Your task to perform on an android device: Clear the cart on walmart. Add "logitech g933" to the cart on walmart, then select checkout. Image 0: 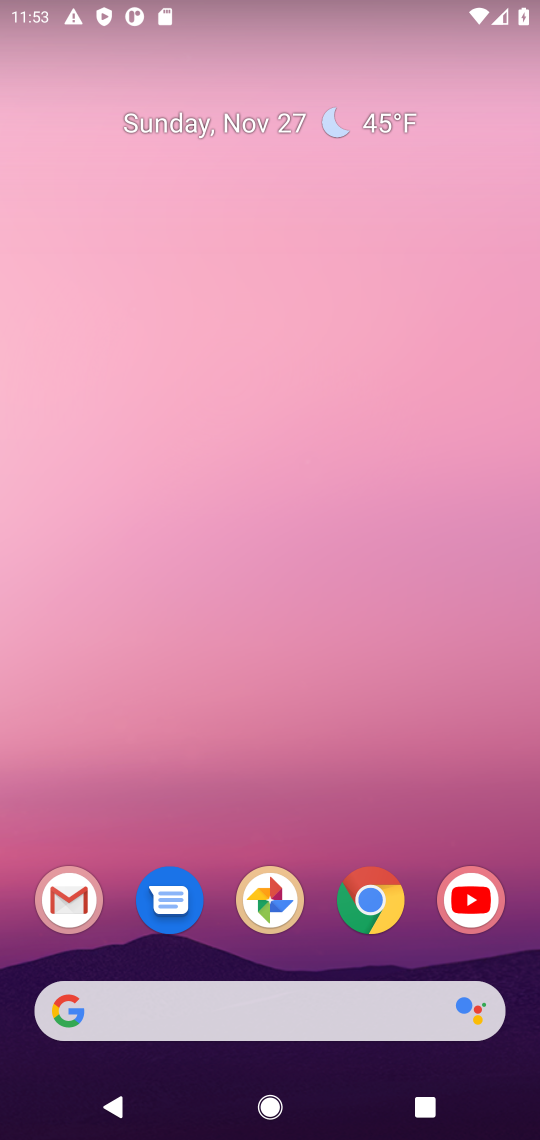
Step 0: click (383, 908)
Your task to perform on an android device: Clear the cart on walmart. Add "logitech g933" to the cart on walmart, then select checkout. Image 1: 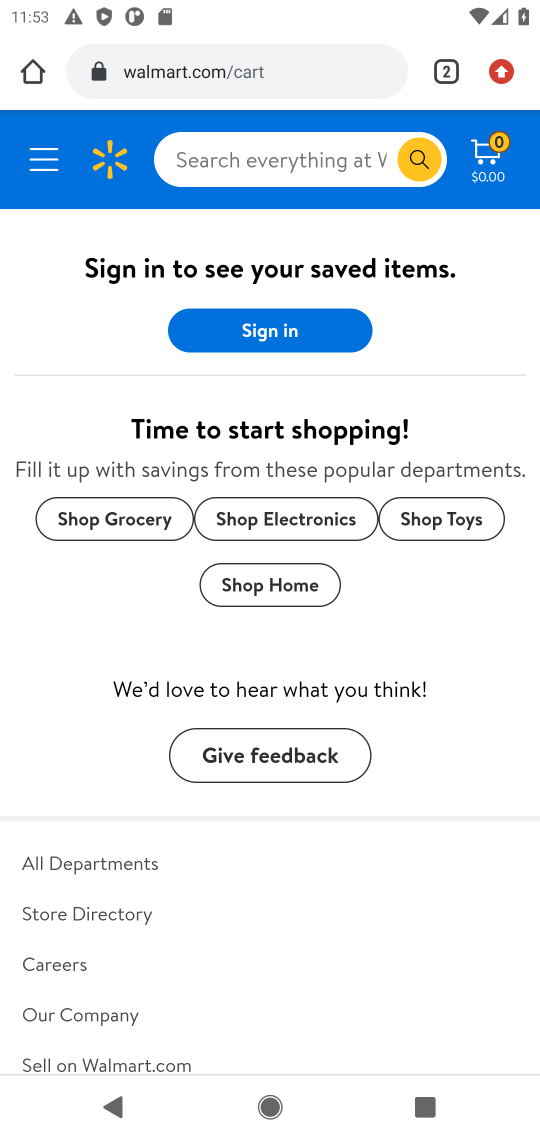
Step 1: click (480, 142)
Your task to perform on an android device: Clear the cart on walmart. Add "logitech g933" to the cart on walmart, then select checkout. Image 2: 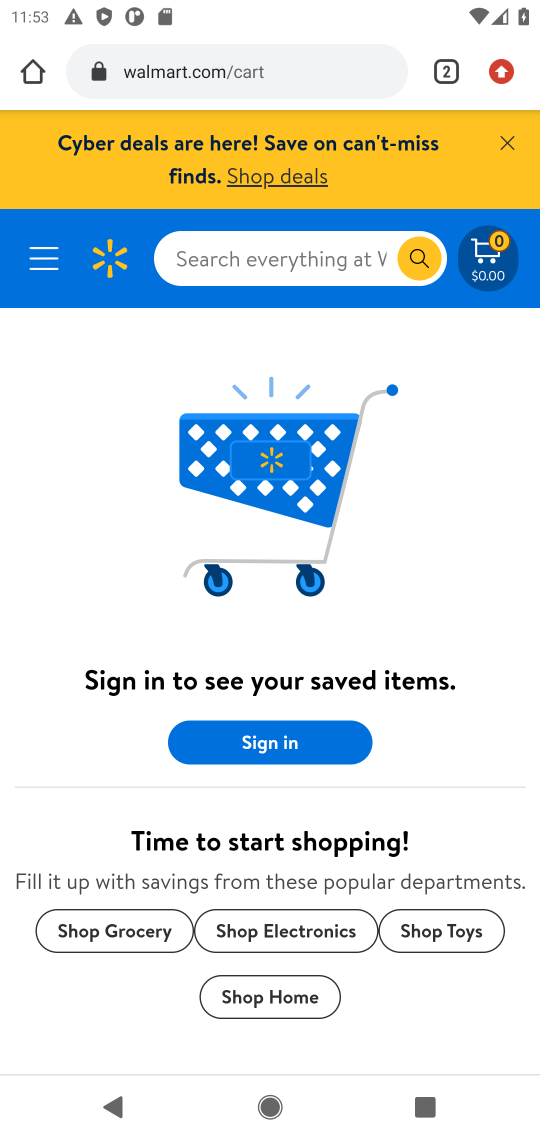
Step 2: click (238, 255)
Your task to perform on an android device: Clear the cart on walmart. Add "logitech g933" to the cart on walmart, then select checkout. Image 3: 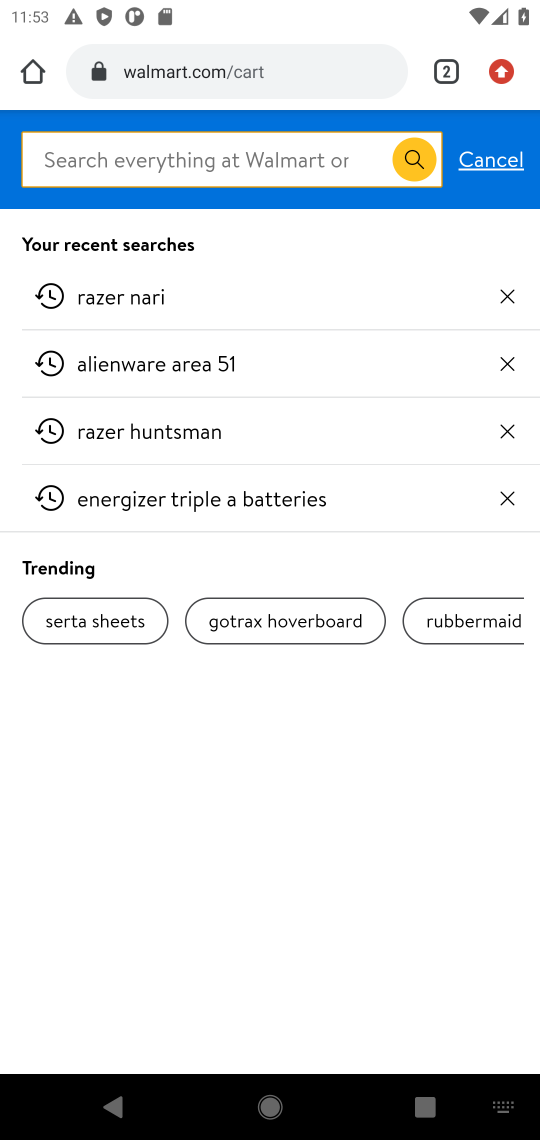
Step 3: type "logitech g933"
Your task to perform on an android device: Clear the cart on walmart. Add "logitech g933" to the cart on walmart, then select checkout. Image 4: 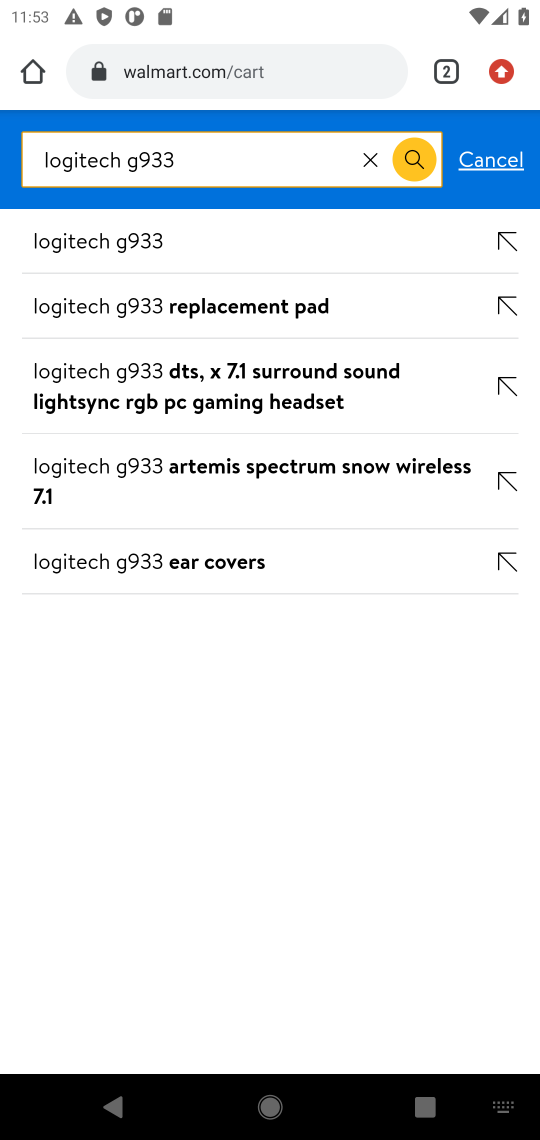
Step 4: click (73, 250)
Your task to perform on an android device: Clear the cart on walmart. Add "logitech g933" to the cart on walmart, then select checkout. Image 5: 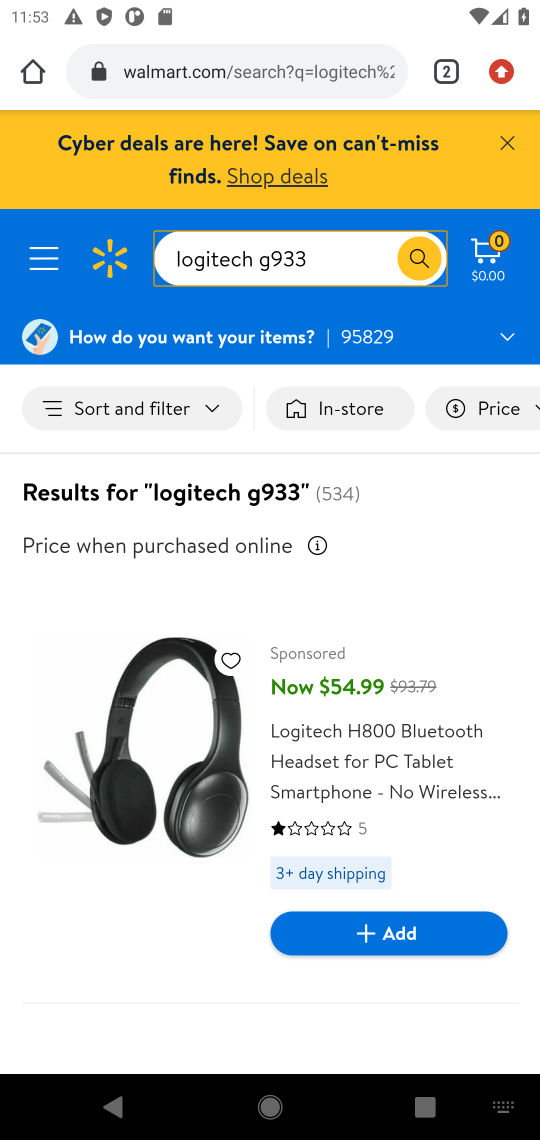
Step 5: drag from (184, 625) to (200, 260)
Your task to perform on an android device: Clear the cart on walmart. Add "logitech g933" to the cart on walmart, then select checkout. Image 6: 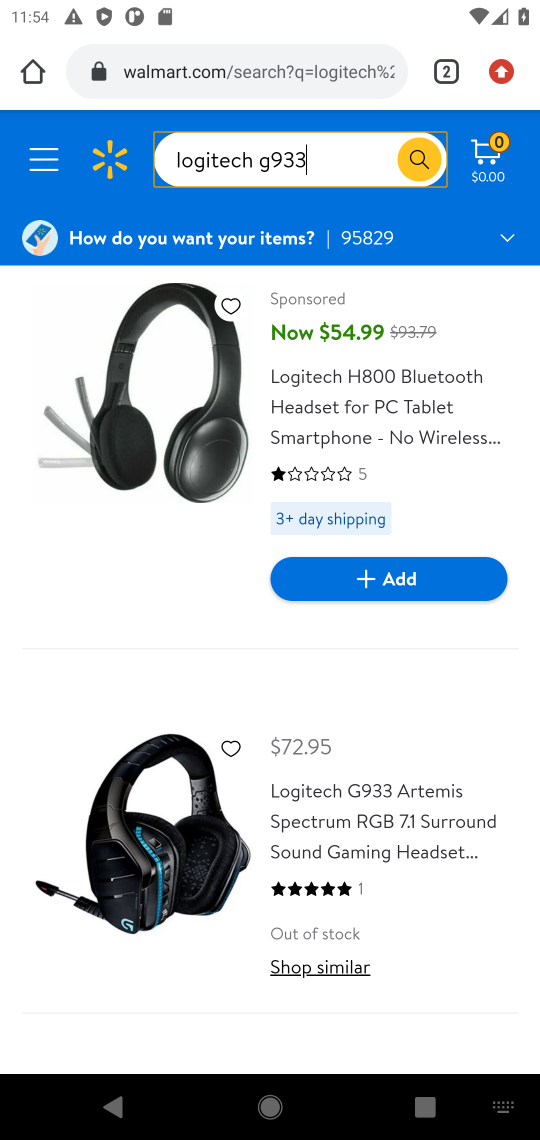
Step 6: drag from (168, 818) to (184, 489)
Your task to perform on an android device: Clear the cart on walmart. Add "logitech g933" to the cart on walmart, then select checkout. Image 7: 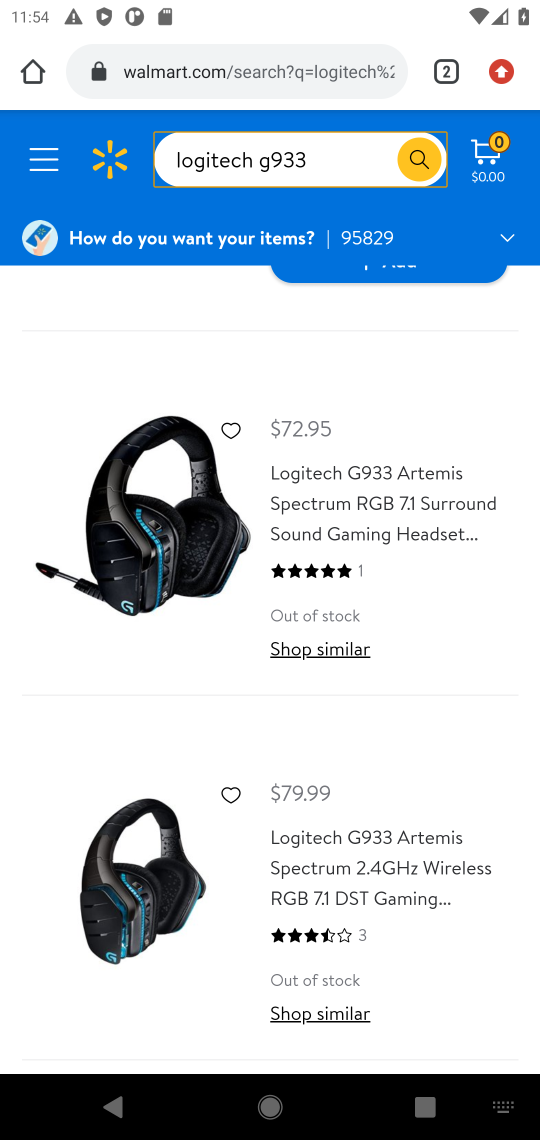
Step 7: drag from (166, 666) to (161, 522)
Your task to perform on an android device: Clear the cart on walmart. Add "logitech g933" to the cart on walmart, then select checkout. Image 8: 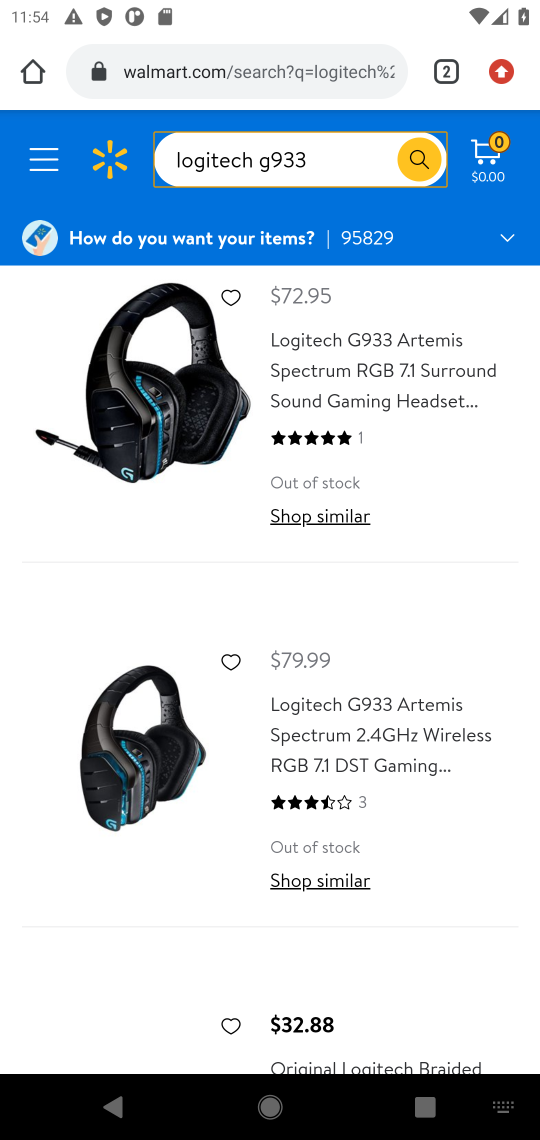
Step 8: drag from (93, 725) to (105, 357)
Your task to perform on an android device: Clear the cart on walmart. Add "logitech g933" to the cart on walmart, then select checkout. Image 9: 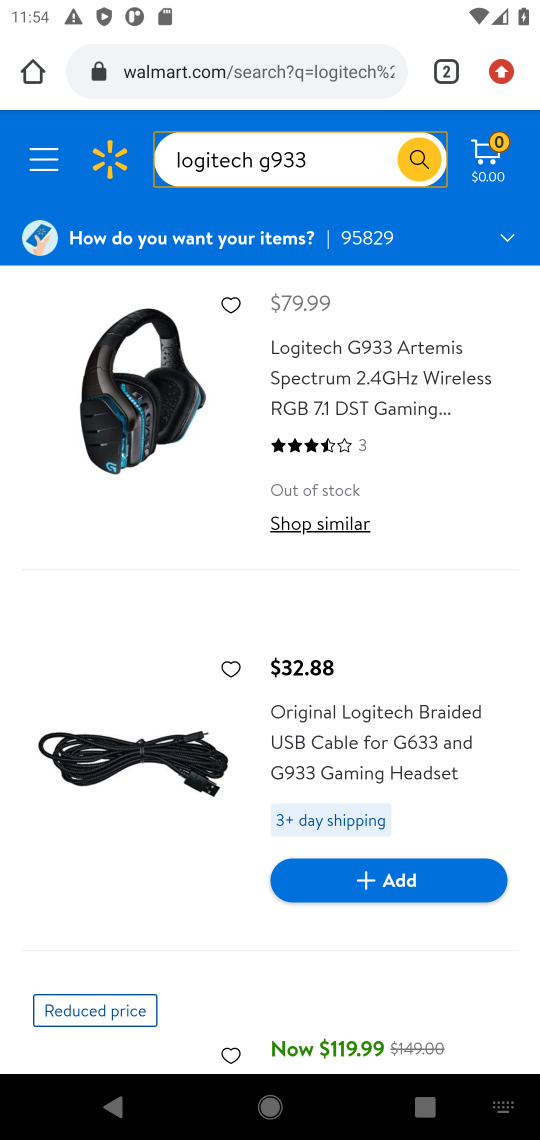
Step 9: click (393, 889)
Your task to perform on an android device: Clear the cart on walmart. Add "logitech g933" to the cart on walmart, then select checkout. Image 10: 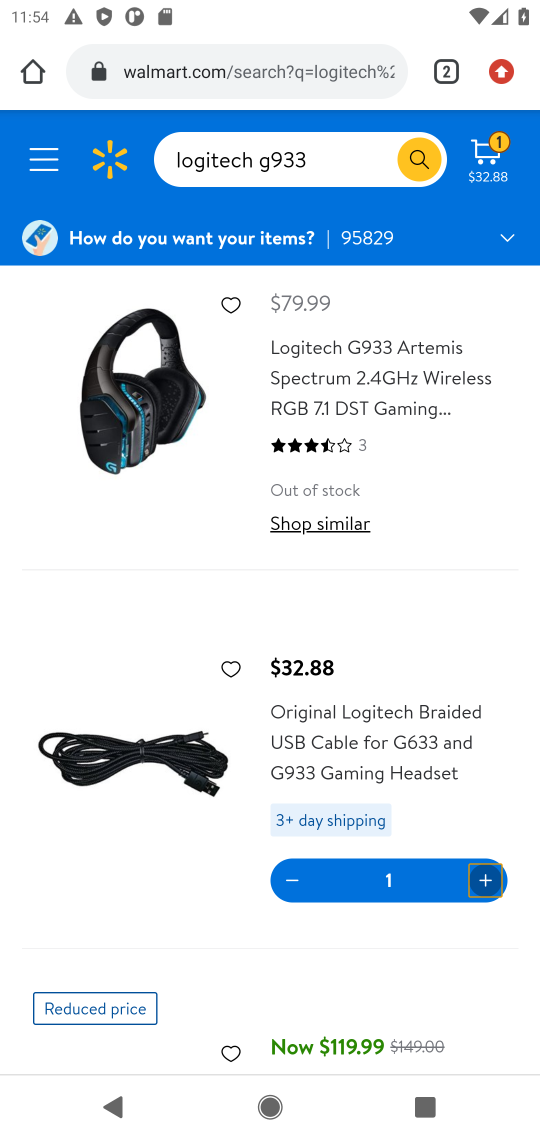
Step 10: click (497, 157)
Your task to perform on an android device: Clear the cart on walmart. Add "logitech g933" to the cart on walmart, then select checkout. Image 11: 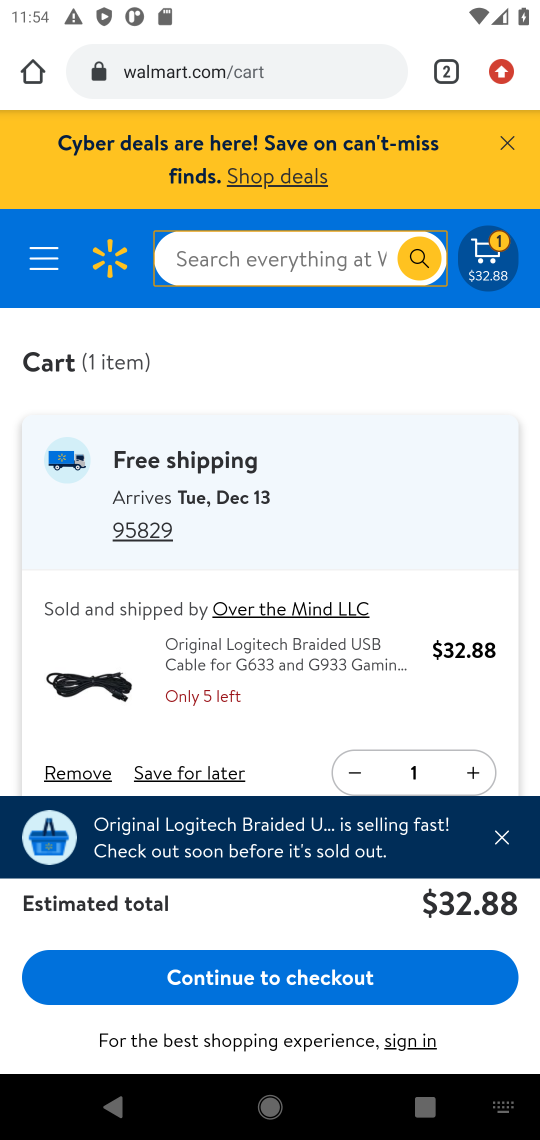
Step 11: click (254, 984)
Your task to perform on an android device: Clear the cart on walmart. Add "logitech g933" to the cart on walmart, then select checkout. Image 12: 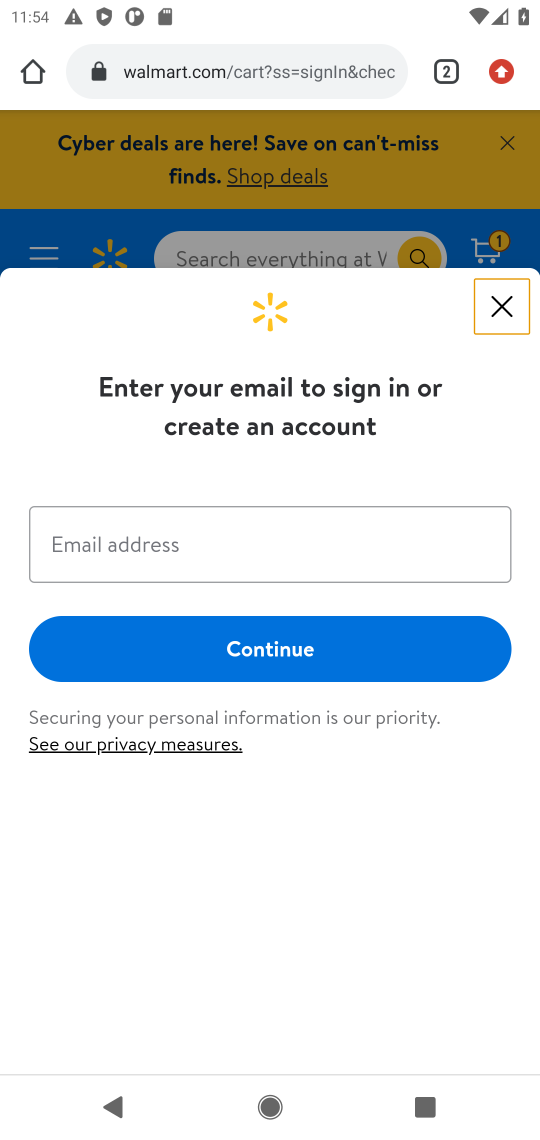
Step 12: task complete